Your task to perform on an android device: toggle priority inbox in the gmail app Image 0: 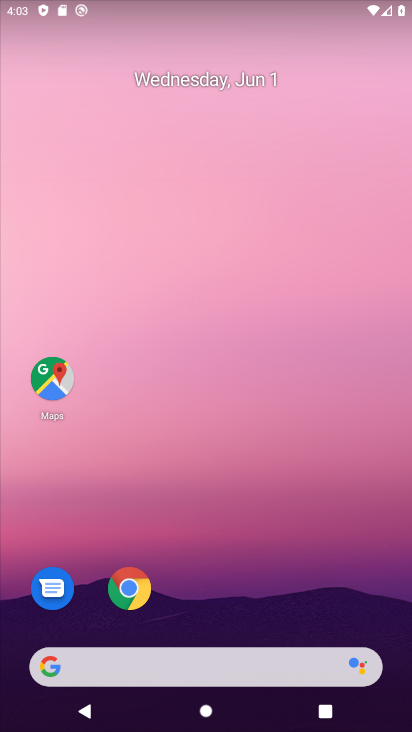
Step 0: drag from (244, 581) to (178, 236)
Your task to perform on an android device: toggle priority inbox in the gmail app Image 1: 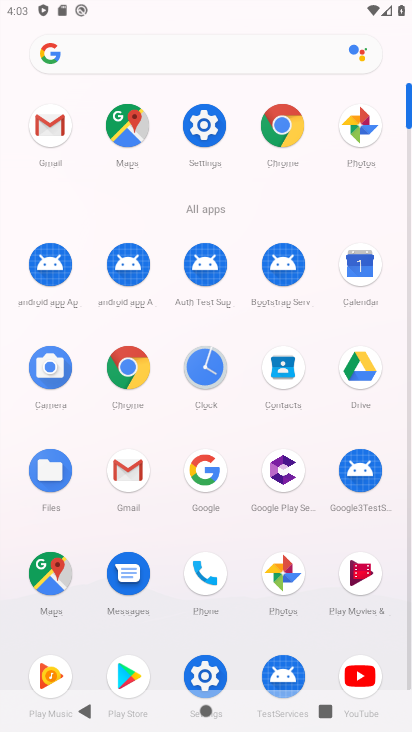
Step 1: click (44, 128)
Your task to perform on an android device: toggle priority inbox in the gmail app Image 2: 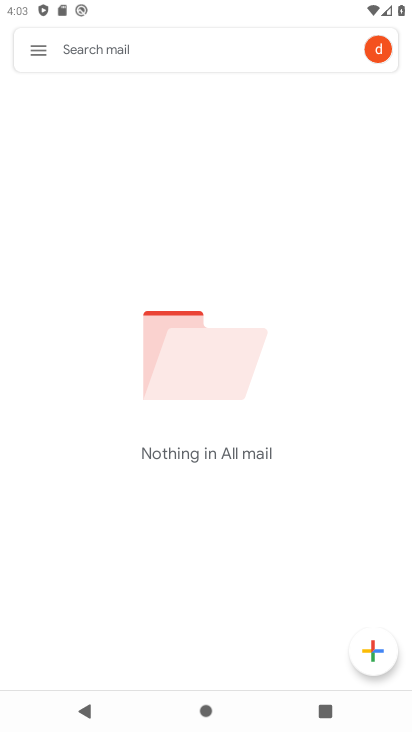
Step 2: click (36, 56)
Your task to perform on an android device: toggle priority inbox in the gmail app Image 3: 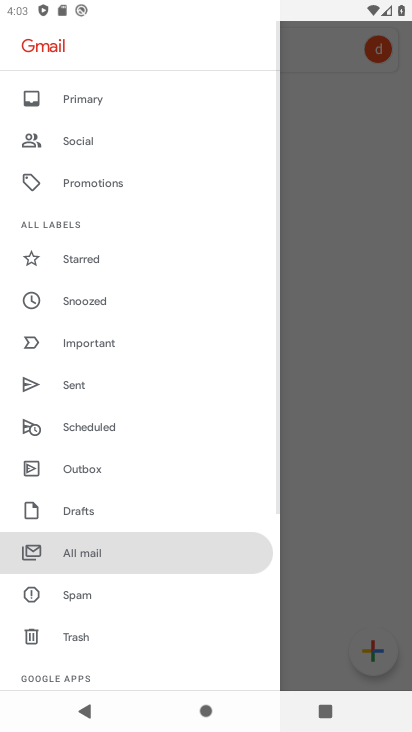
Step 3: drag from (75, 660) to (63, 382)
Your task to perform on an android device: toggle priority inbox in the gmail app Image 4: 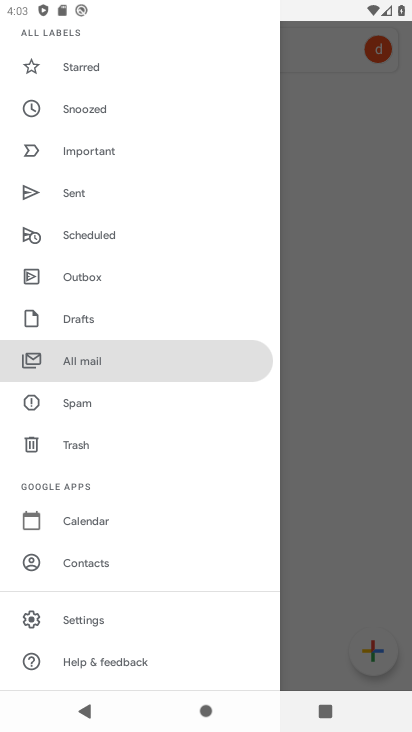
Step 4: click (81, 633)
Your task to perform on an android device: toggle priority inbox in the gmail app Image 5: 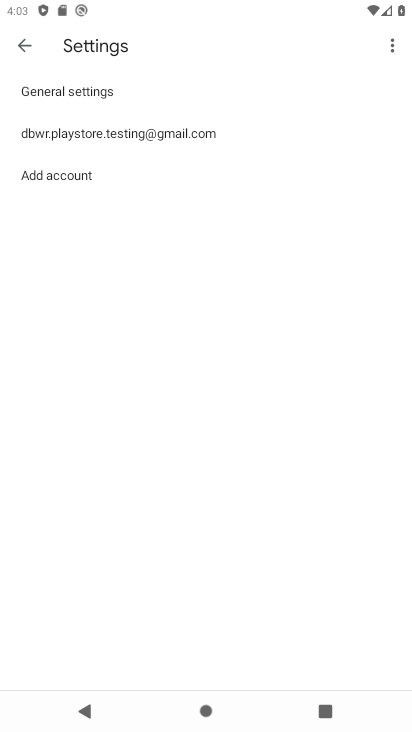
Step 5: click (183, 149)
Your task to perform on an android device: toggle priority inbox in the gmail app Image 6: 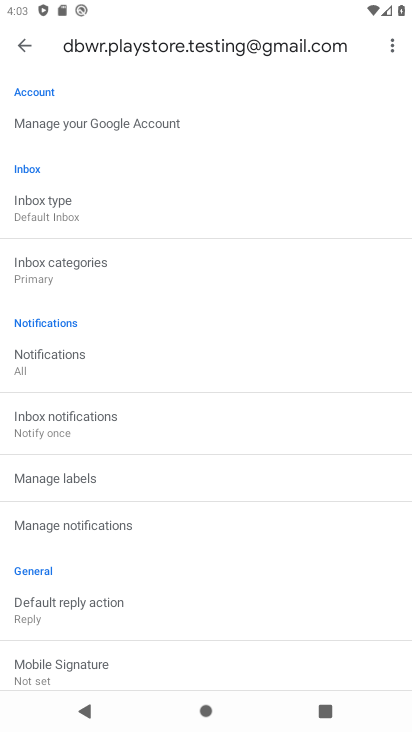
Step 6: click (151, 222)
Your task to perform on an android device: toggle priority inbox in the gmail app Image 7: 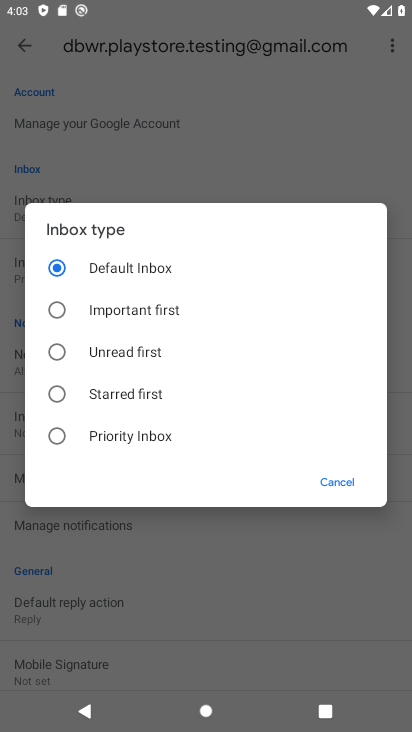
Step 7: click (152, 443)
Your task to perform on an android device: toggle priority inbox in the gmail app Image 8: 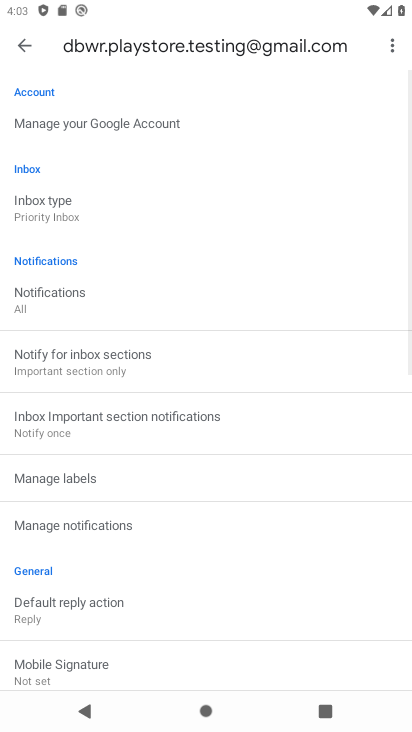
Step 8: task complete